Your task to perform on an android device: open device folders in google photos Image 0: 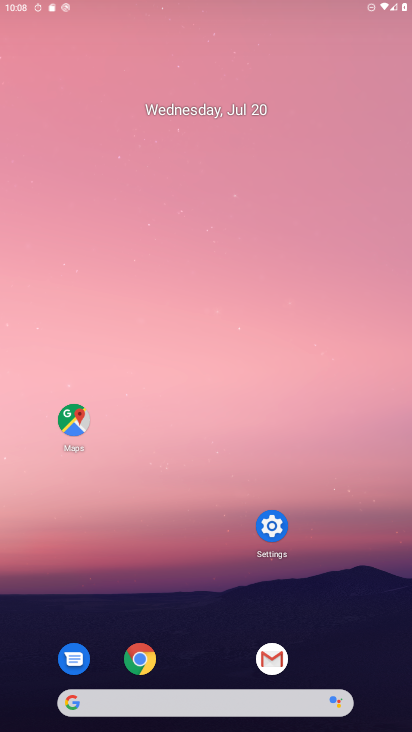
Step 0: press home button
Your task to perform on an android device: open device folders in google photos Image 1: 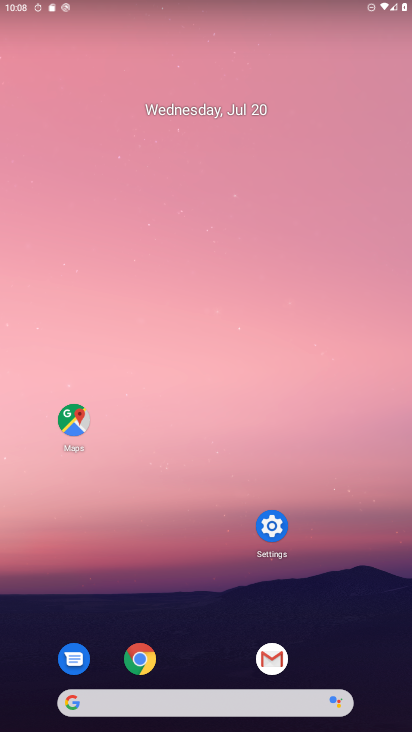
Step 1: drag from (226, 724) to (206, 263)
Your task to perform on an android device: open device folders in google photos Image 2: 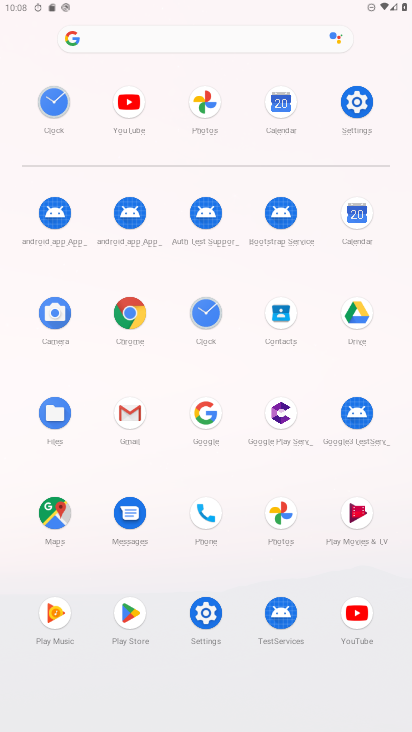
Step 2: click (287, 508)
Your task to perform on an android device: open device folders in google photos Image 3: 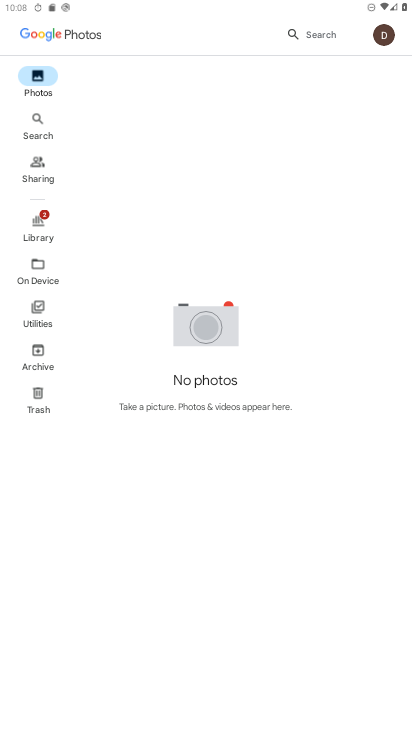
Step 3: click (292, 27)
Your task to perform on an android device: open device folders in google photos Image 4: 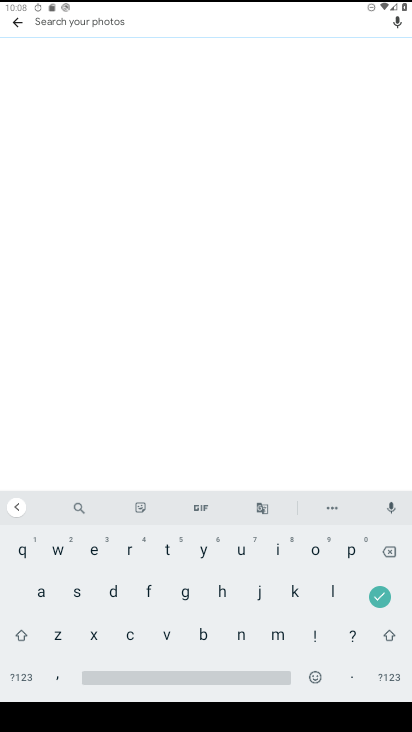
Step 4: click (110, 584)
Your task to perform on an android device: open device folders in google photos Image 5: 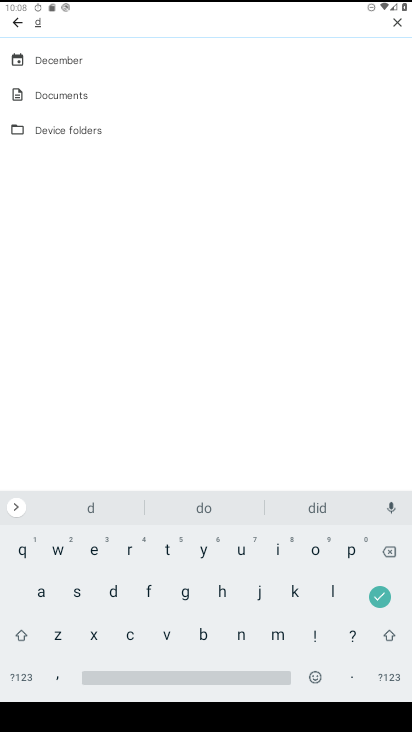
Step 5: click (75, 126)
Your task to perform on an android device: open device folders in google photos Image 6: 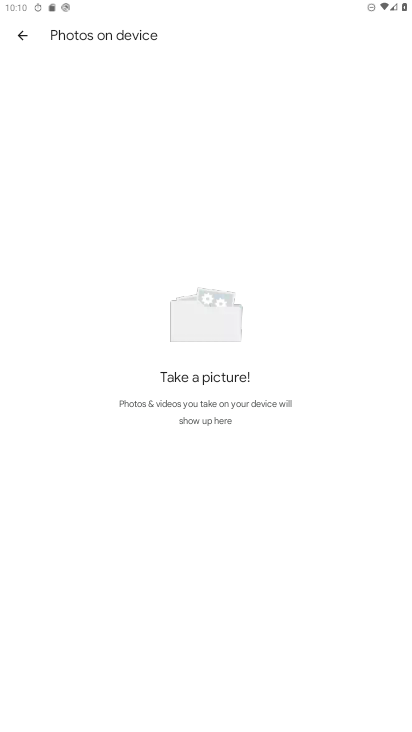
Step 6: task complete